Your task to perform on an android device: Go to Android settings Image 0: 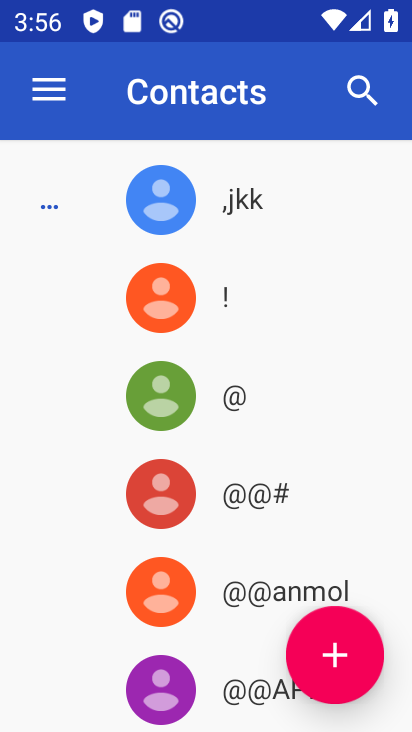
Step 0: press home button
Your task to perform on an android device: Go to Android settings Image 1: 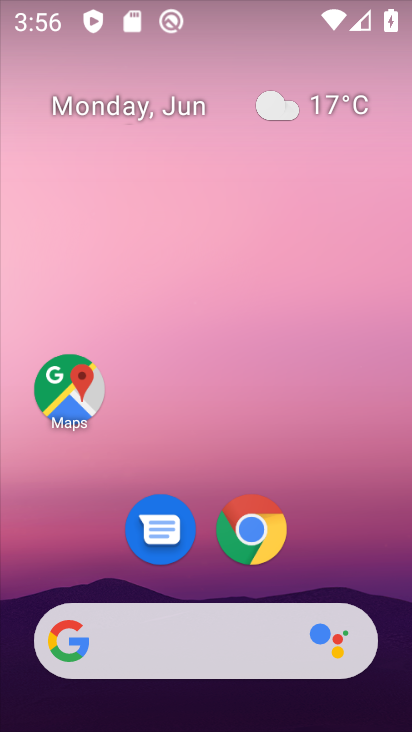
Step 1: drag from (355, 531) to (257, 62)
Your task to perform on an android device: Go to Android settings Image 2: 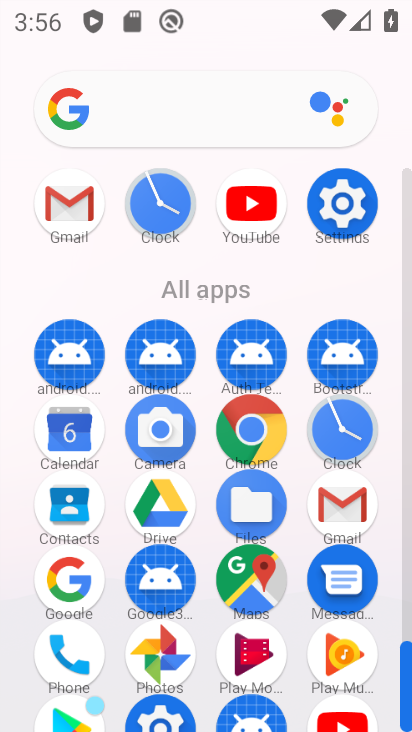
Step 2: click (346, 200)
Your task to perform on an android device: Go to Android settings Image 3: 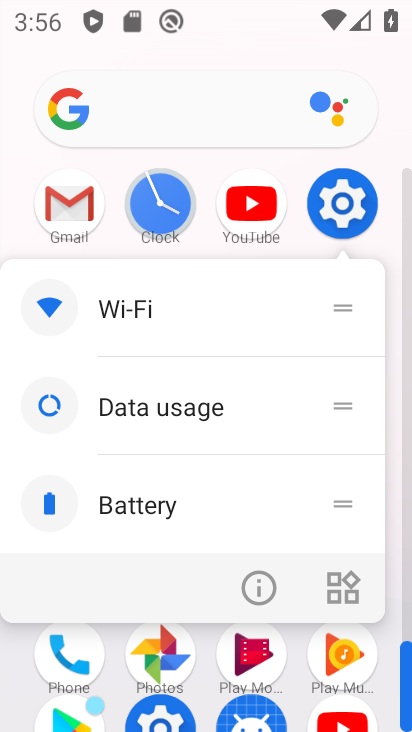
Step 3: click (345, 197)
Your task to perform on an android device: Go to Android settings Image 4: 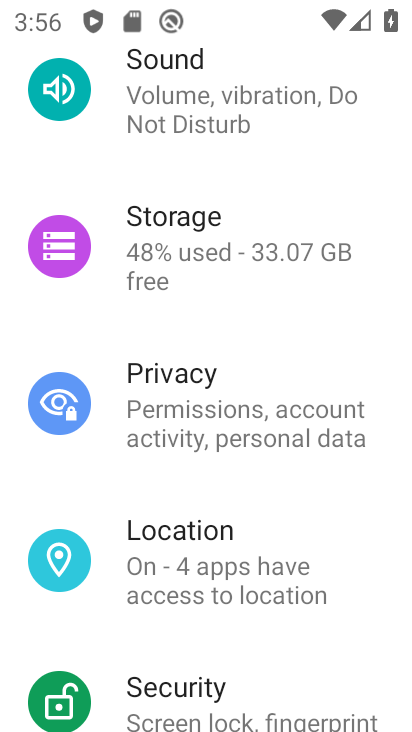
Step 4: task complete